Your task to perform on an android device: Find coffee shops on Maps Image 0: 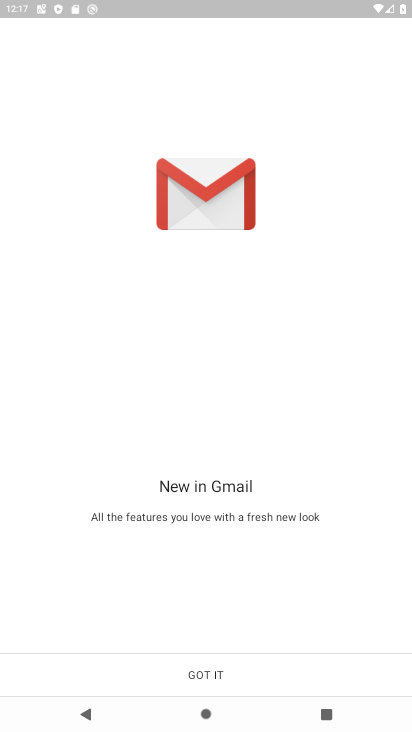
Step 0: press back button
Your task to perform on an android device: Find coffee shops on Maps Image 1: 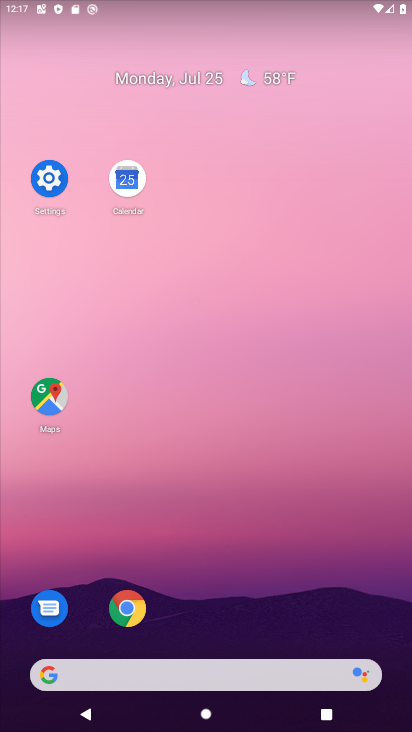
Step 1: click (62, 407)
Your task to perform on an android device: Find coffee shops on Maps Image 2: 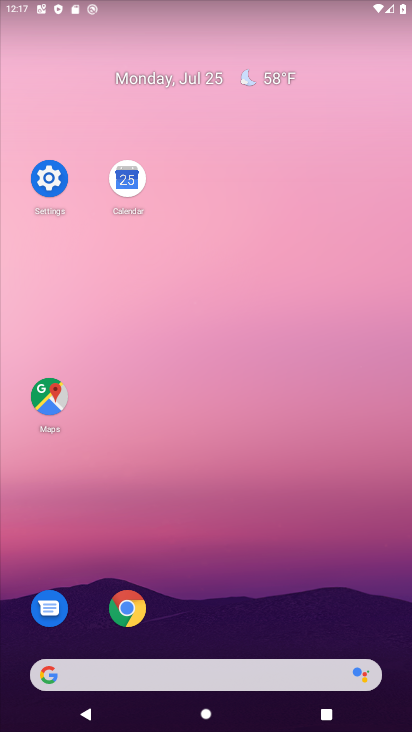
Step 2: click (47, 401)
Your task to perform on an android device: Find coffee shops on Maps Image 3: 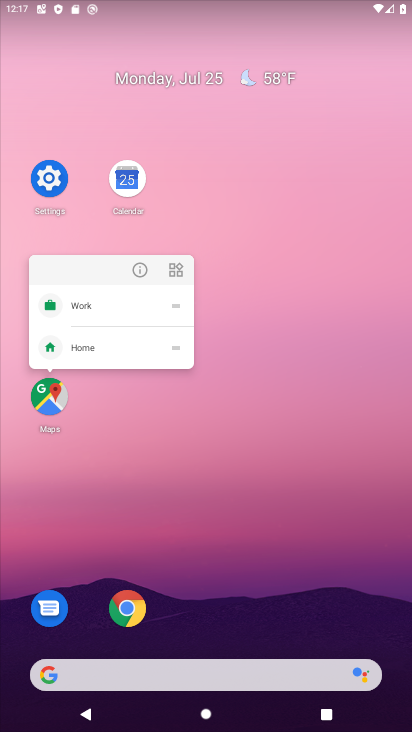
Step 3: click (60, 399)
Your task to perform on an android device: Find coffee shops on Maps Image 4: 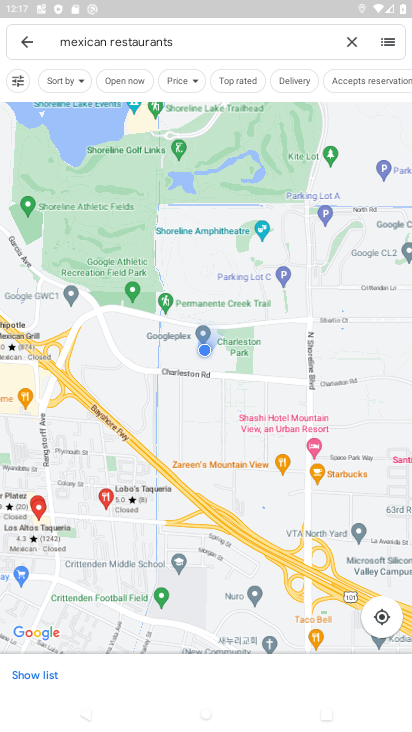
Step 4: click (358, 47)
Your task to perform on an android device: Find coffee shops on Maps Image 5: 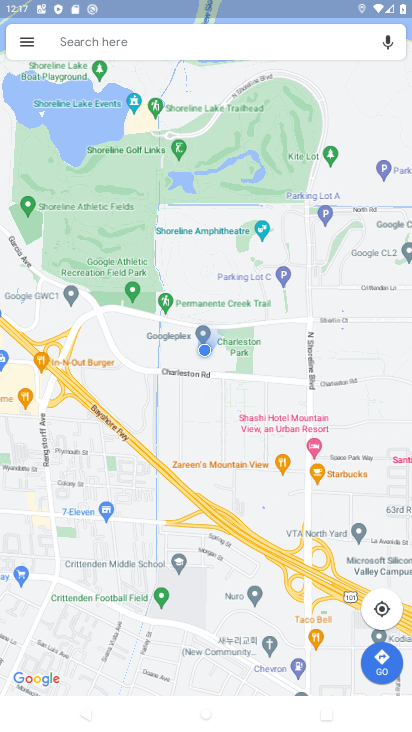
Step 5: click (209, 45)
Your task to perform on an android device: Find coffee shops on Maps Image 6: 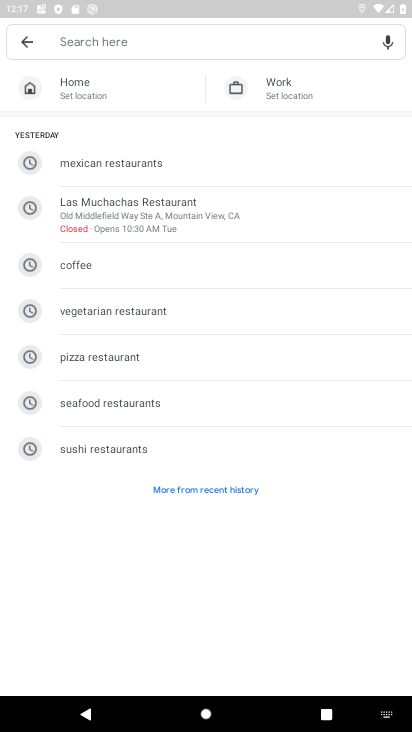
Step 6: type "coffee shops"
Your task to perform on an android device: Find coffee shops on Maps Image 7: 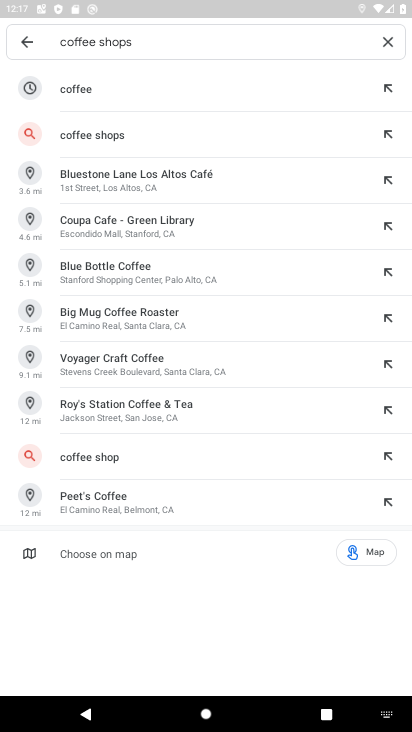
Step 7: click (141, 142)
Your task to perform on an android device: Find coffee shops on Maps Image 8: 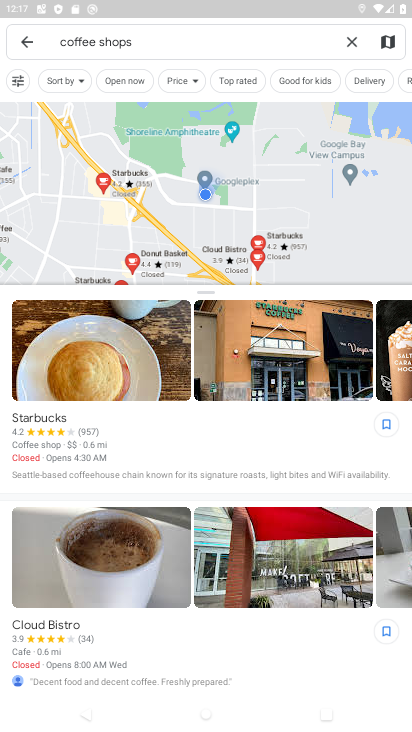
Step 8: task complete